Your task to perform on an android device: read, delete, or share a saved page in the chrome app Image 0: 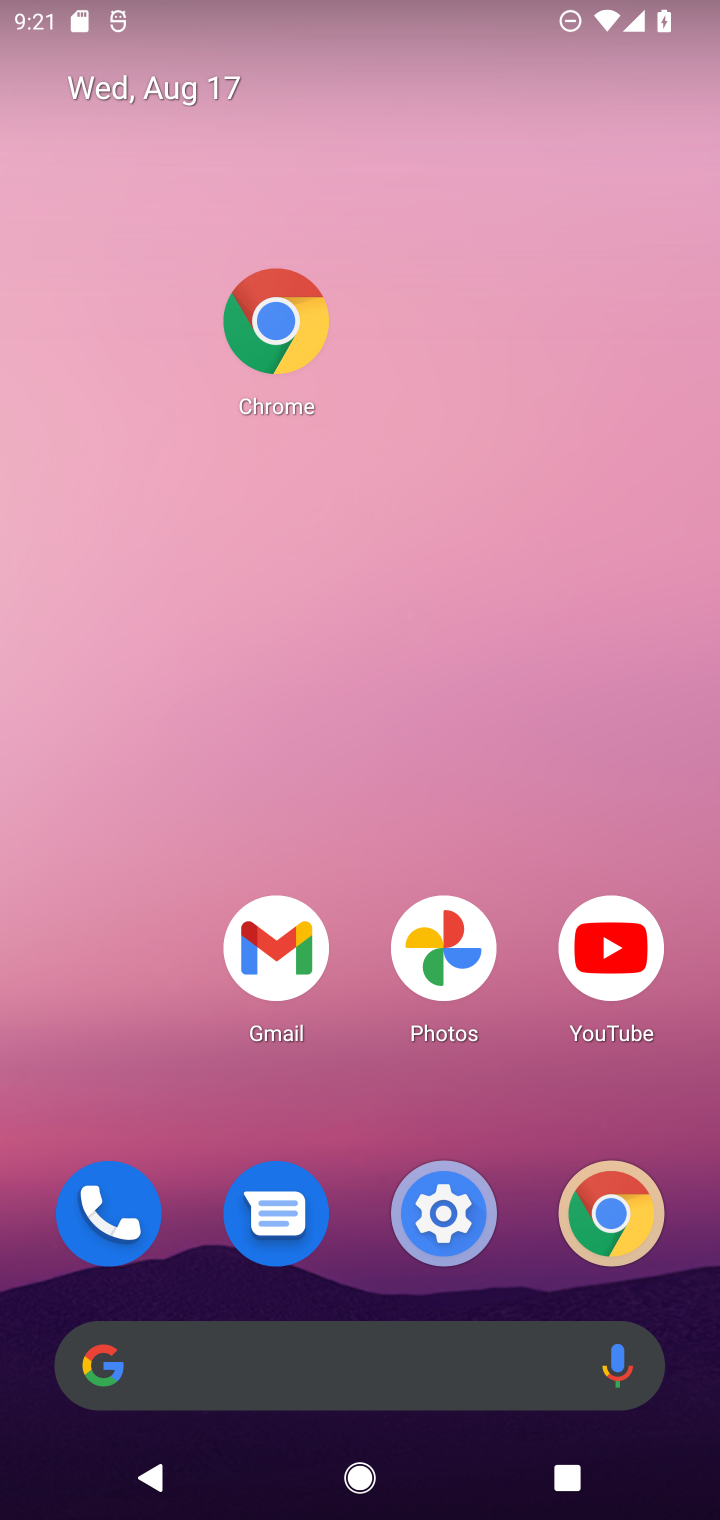
Step 0: click (616, 1221)
Your task to perform on an android device: read, delete, or share a saved page in the chrome app Image 1: 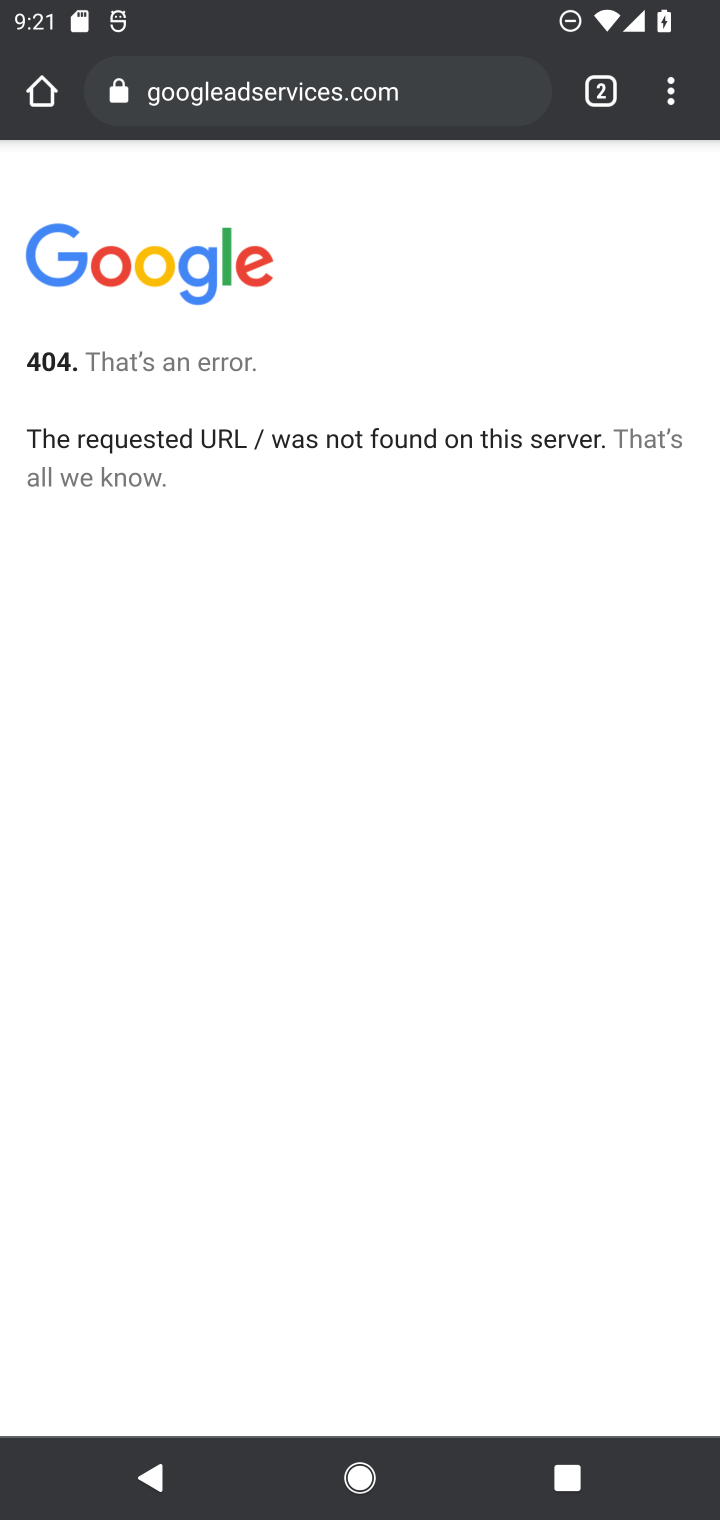
Step 1: click (674, 80)
Your task to perform on an android device: read, delete, or share a saved page in the chrome app Image 2: 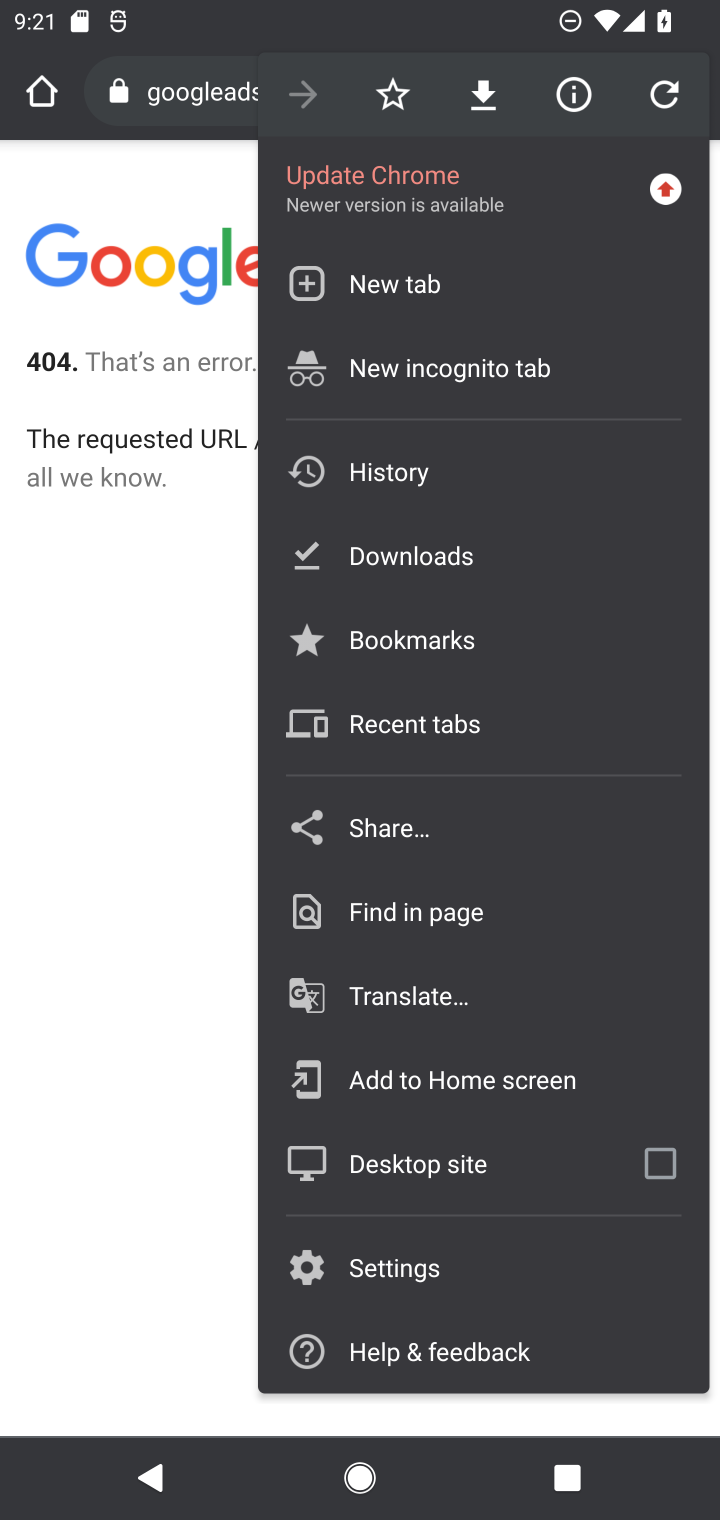
Step 2: click (386, 558)
Your task to perform on an android device: read, delete, or share a saved page in the chrome app Image 3: 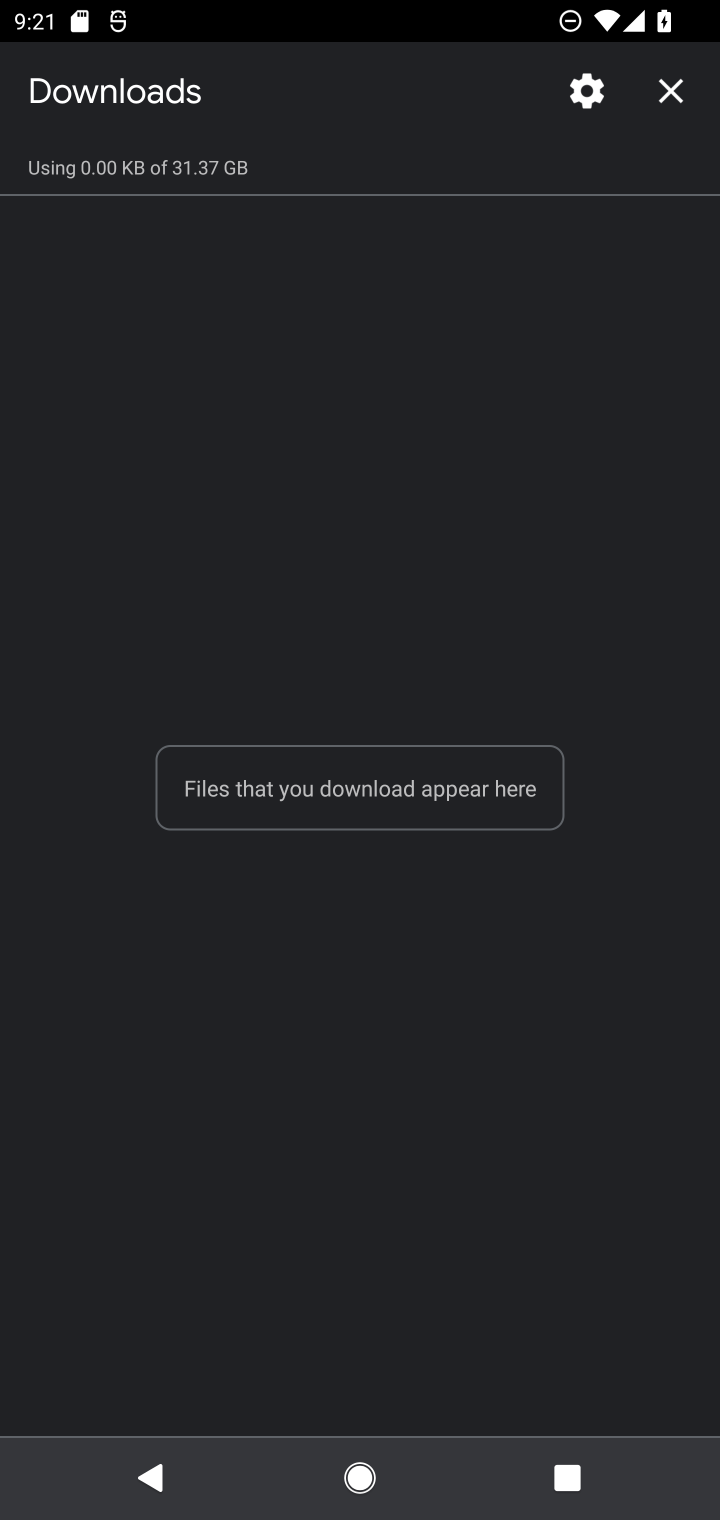
Step 3: task complete